Your task to perform on an android device: Open Maps and search for coffee Image 0: 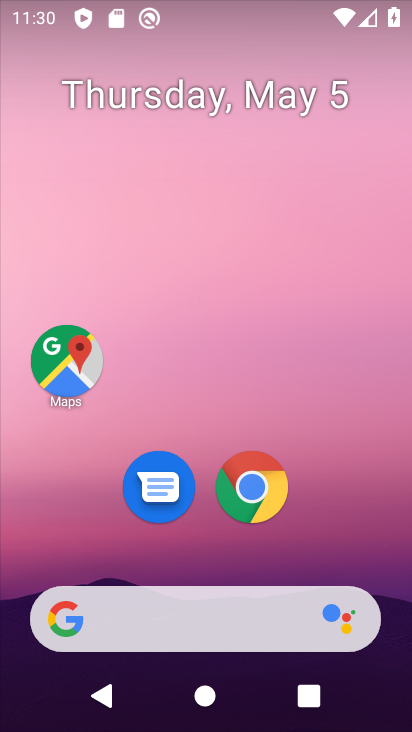
Step 0: click (352, 517)
Your task to perform on an android device: Open Maps and search for coffee Image 1: 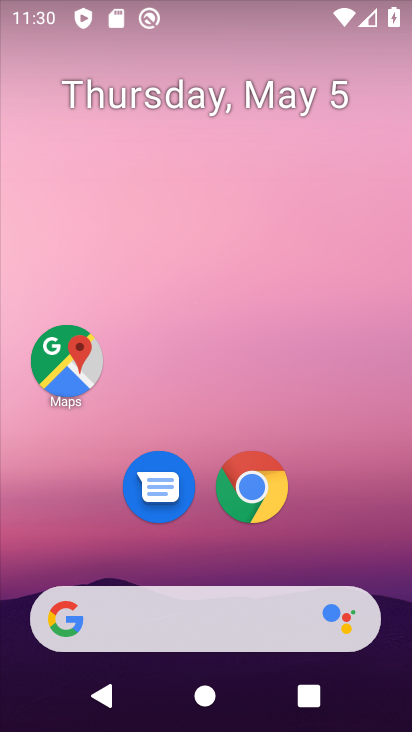
Step 1: click (53, 359)
Your task to perform on an android device: Open Maps and search for coffee Image 2: 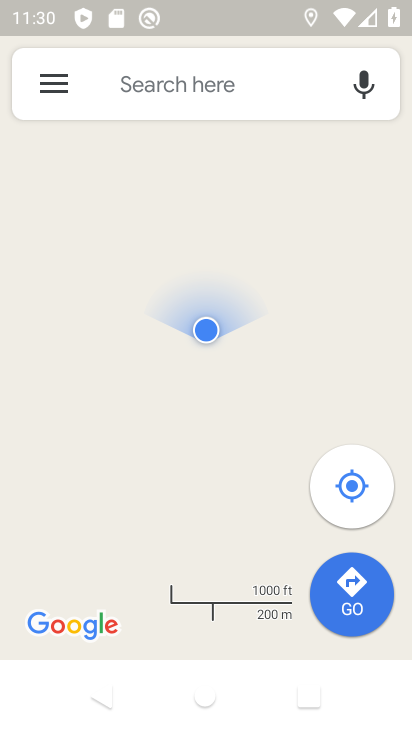
Step 2: click (292, 106)
Your task to perform on an android device: Open Maps and search for coffee Image 3: 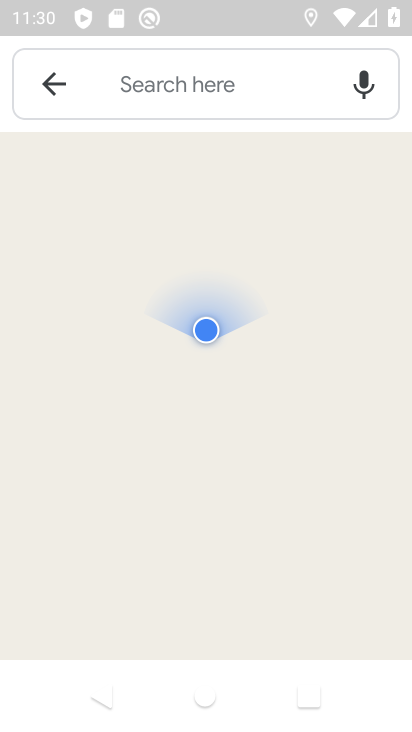
Step 3: click (224, 86)
Your task to perform on an android device: Open Maps and search for coffee Image 4: 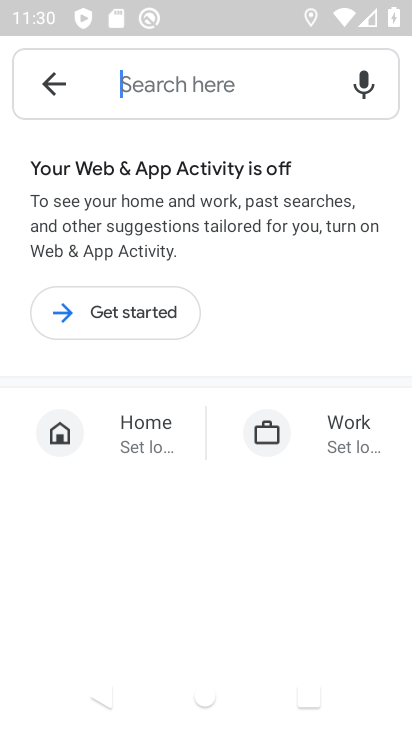
Step 4: click (224, 86)
Your task to perform on an android device: Open Maps and search for coffee Image 5: 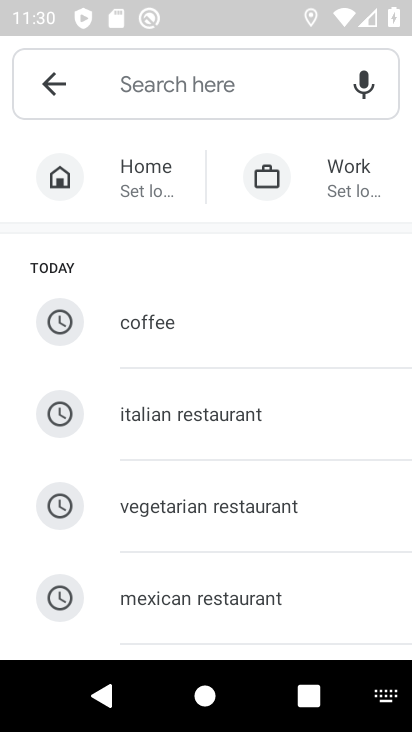
Step 5: click (200, 328)
Your task to perform on an android device: Open Maps and search for coffee Image 6: 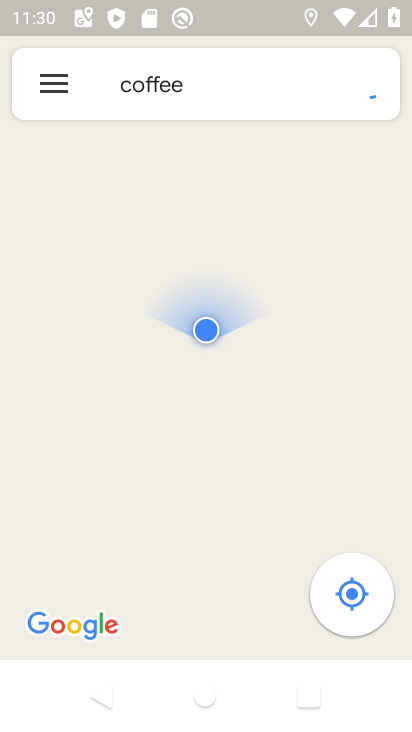
Step 6: task complete